Your task to perform on an android device: Go to Yahoo.com Image 0: 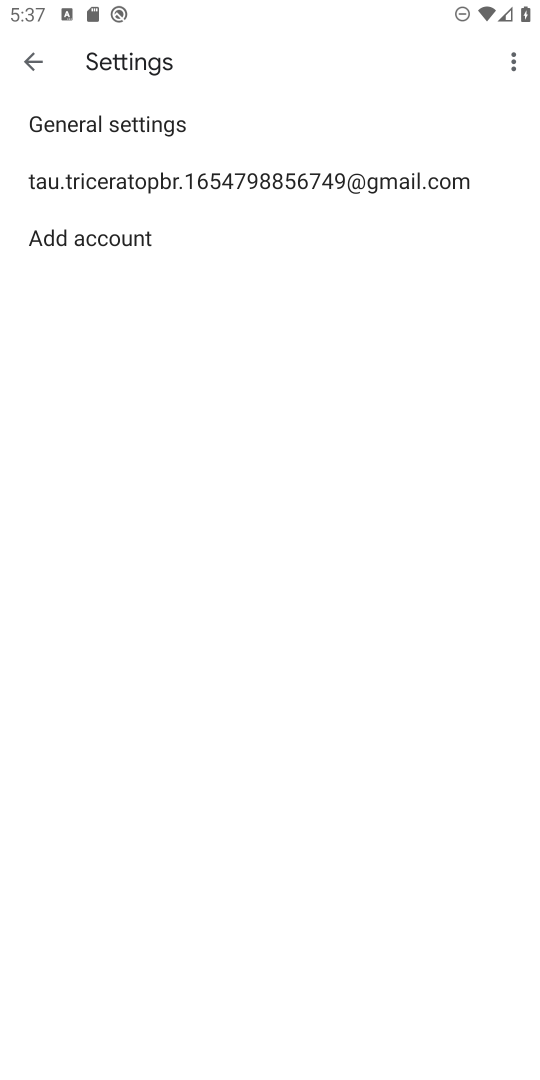
Step 0: press home button
Your task to perform on an android device: Go to Yahoo.com Image 1: 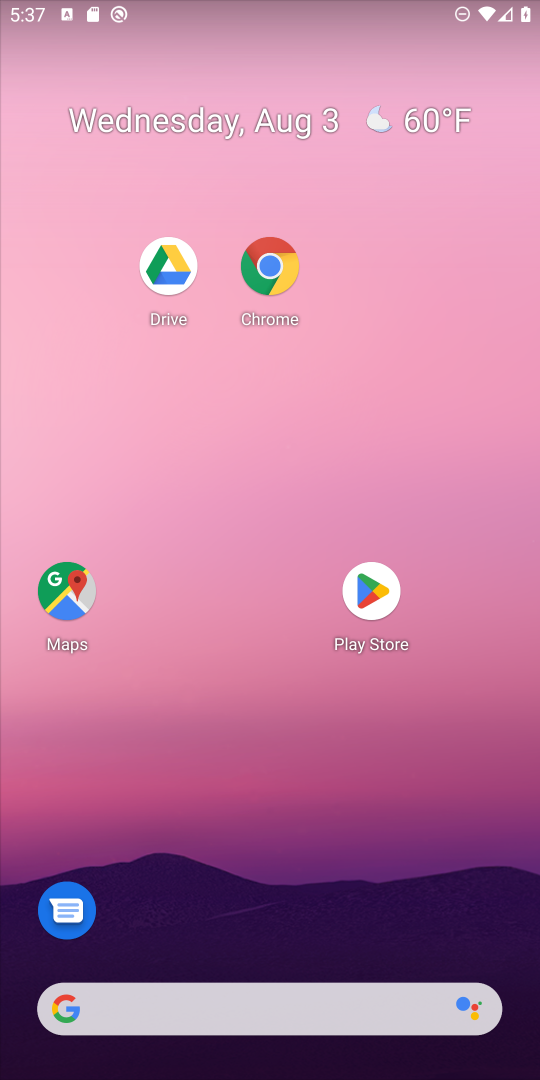
Step 1: drag from (373, 960) to (347, 0)
Your task to perform on an android device: Go to Yahoo.com Image 2: 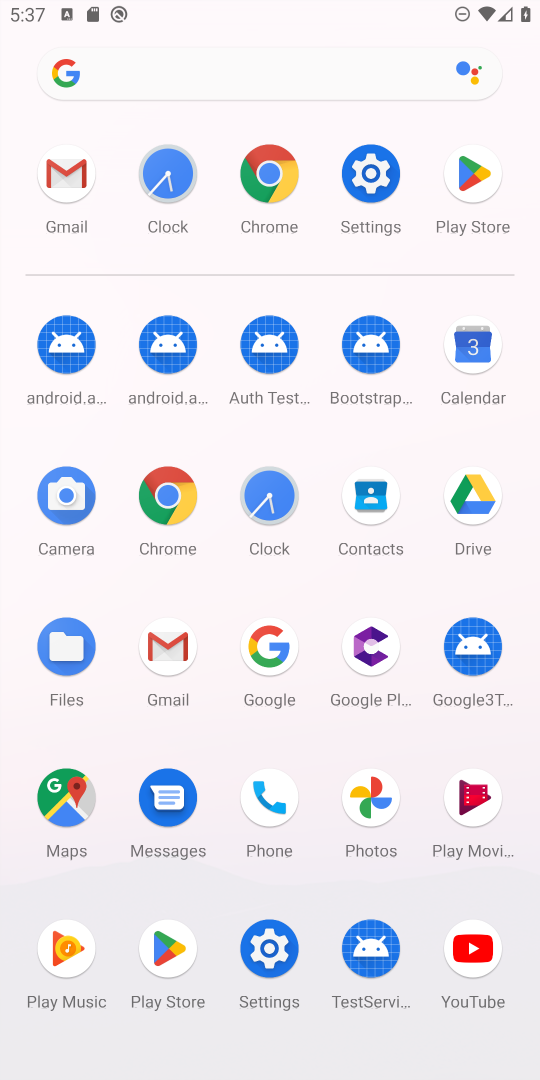
Step 2: click (160, 496)
Your task to perform on an android device: Go to Yahoo.com Image 3: 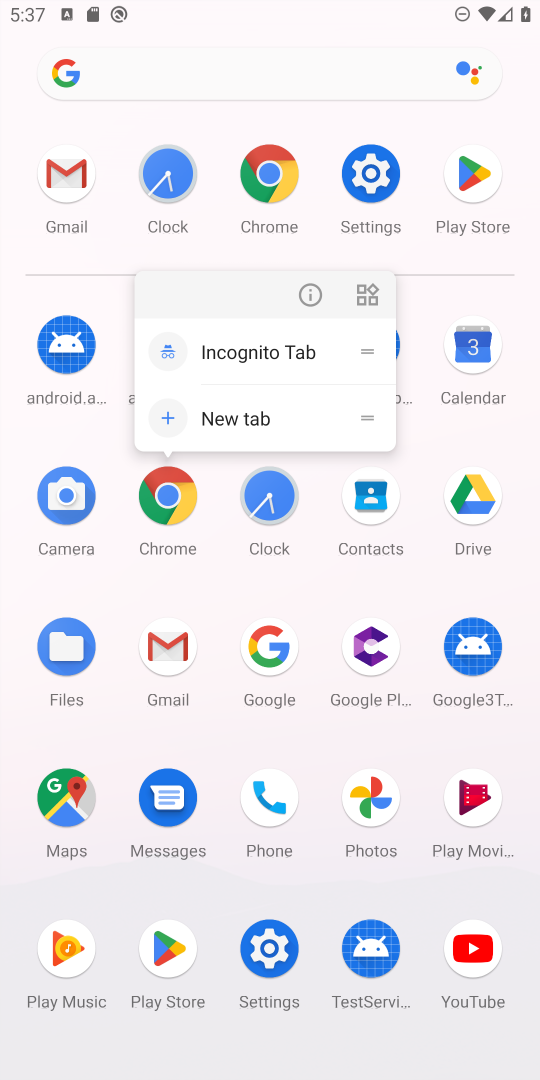
Step 3: click (164, 490)
Your task to perform on an android device: Go to Yahoo.com Image 4: 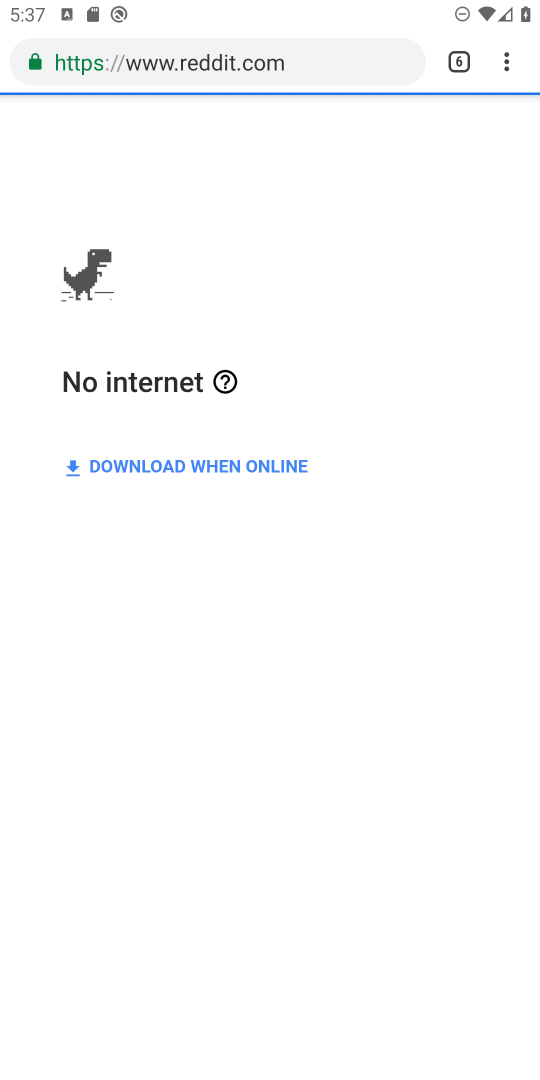
Step 4: click (283, 70)
Your task to perform on an android device: Go to Yahoo.com Image 5: 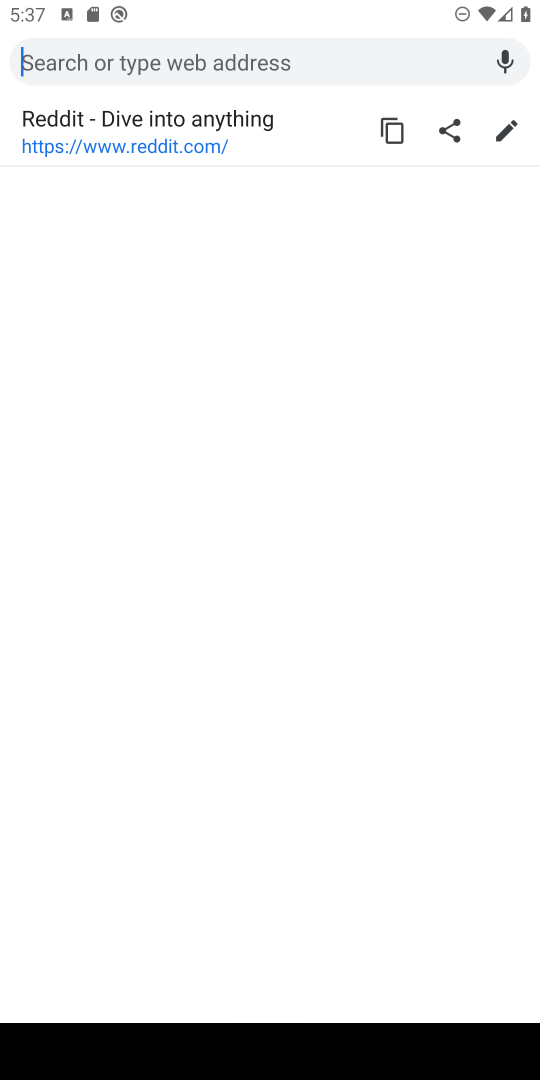
Step 5: type "yahoo.com"
Your task to perform on an android device: Go to Yahoo.com Image 6: 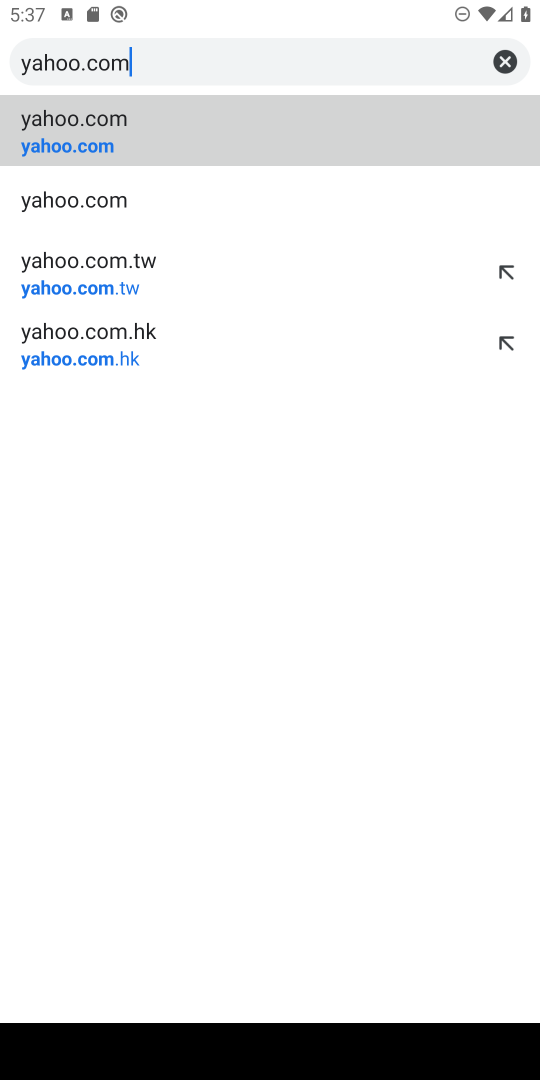
Step 6: click (128, 123)
Your task to perform on an android device: Go to Yahoo.com Image 7: 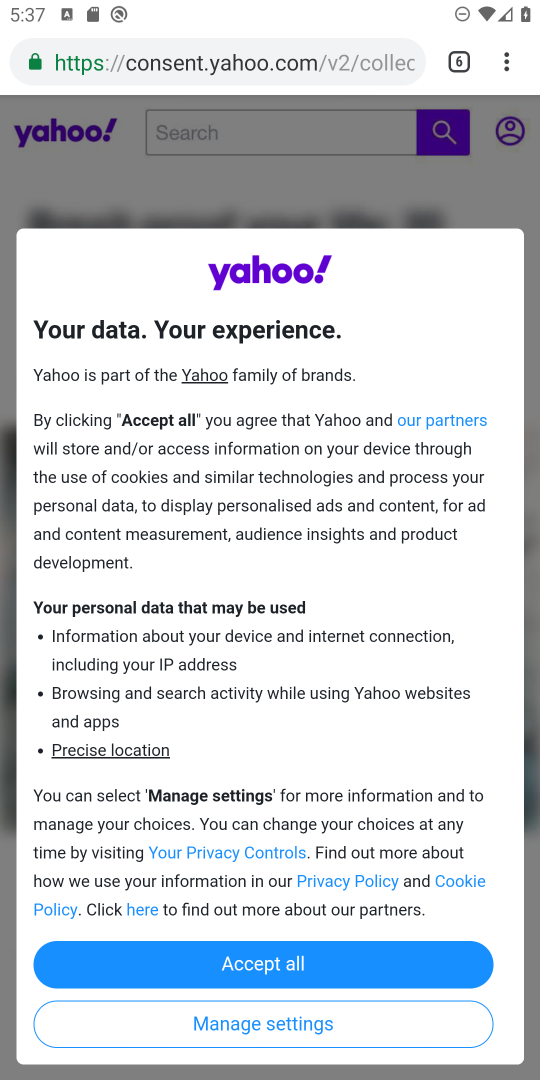
Step 7: task complete